Your task to perform on an android device: delete browsing data in the chrome app Image 0: 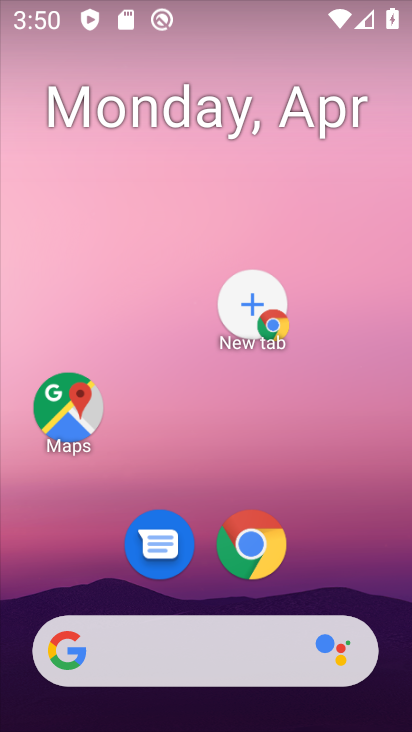
Step 0: drag from (344, 562) to (381, 147)
Your task to perform on an android device: delete browsing data in the chrome app Image 1: 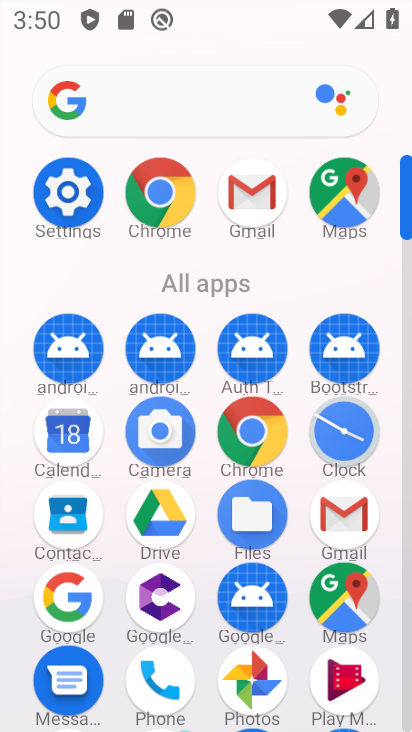
Step 1: click (236, 442)
Your task to perform on an android device: delete browsing data in the chrome app Image 2: 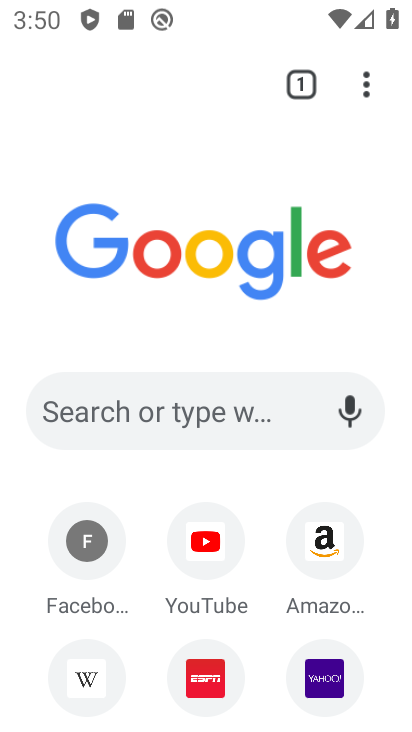
Step 2: click (359, 83)
Your task to perform on an android device: delete browsing data in the chrome app Image 3: 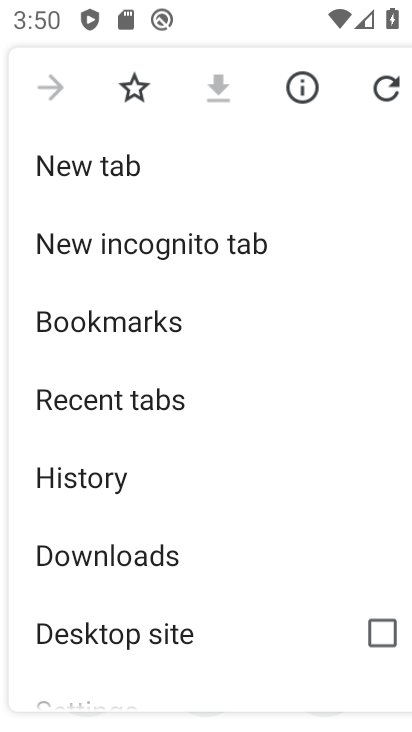
Step 3: drag from (265, 633) to (245, 276)
Your task to perform on an android device: delete browsing data in the chrome app Image 4: 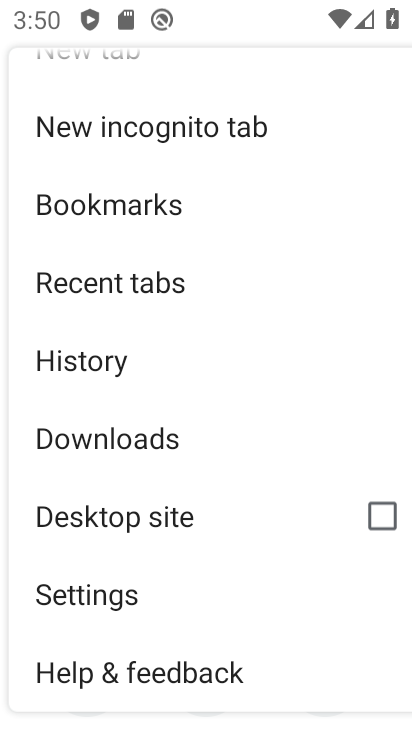
Step 4: click (129, 599)
Your task to perform on an android device: delete browsing data in the chrome app Image 5: 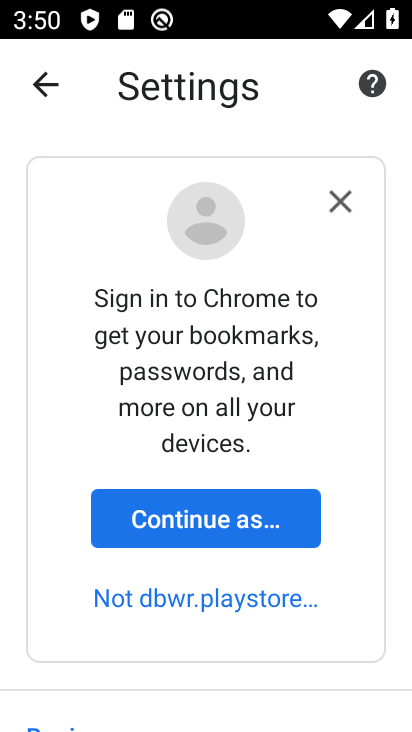
Step 5: drag from (241, 702) to (209, 292)
Your task to perform on an android device: delete browsing data in the chrome app Image 6: 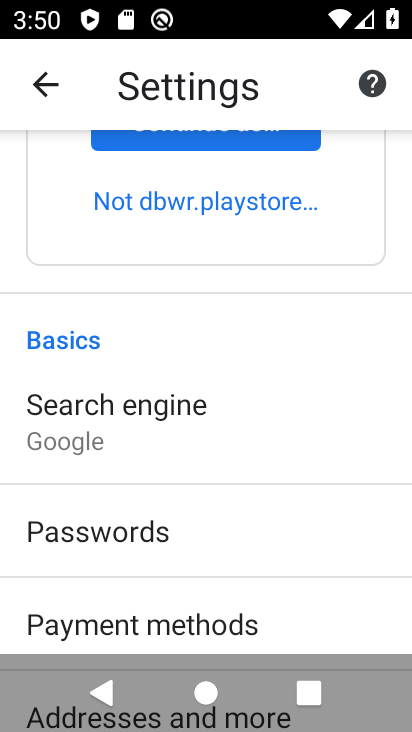
Step 6: drag from (250, 586) to (216, 310)
Your task to perform on an android device: delete browsing data in the chrome app Image 7: 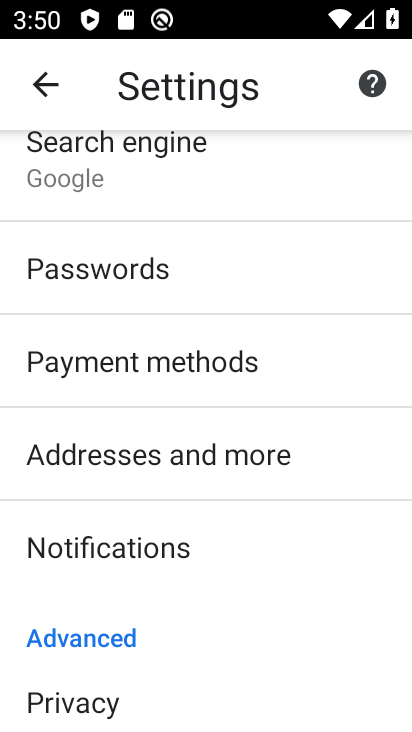
Step 7: drag from (197, 662) to (179, 375)
Your task to perform on an android device: delete browsing data in the chrome app Image 8: 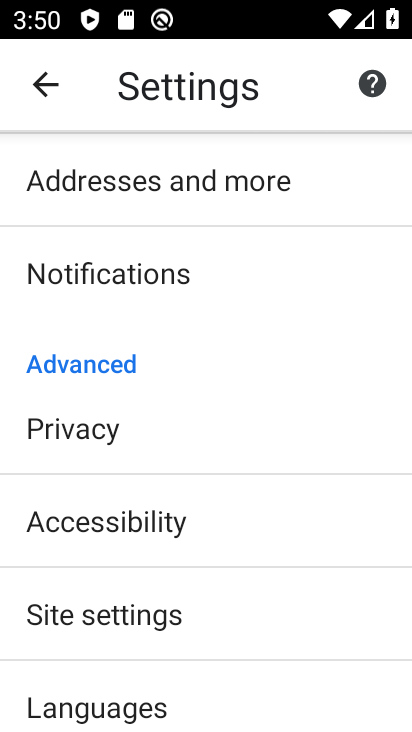
Step 8: click (98, 462)
Your task to perform on an android device: delete browsing data in the chrome app Image 9: 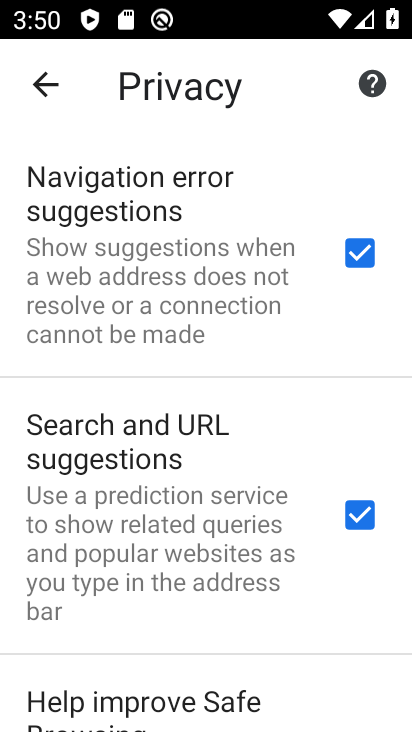
Step 9: drag from (285, 441) to (200, 274)
Your task to perform on an android device: delete browsing data in the chrome app Image 10: 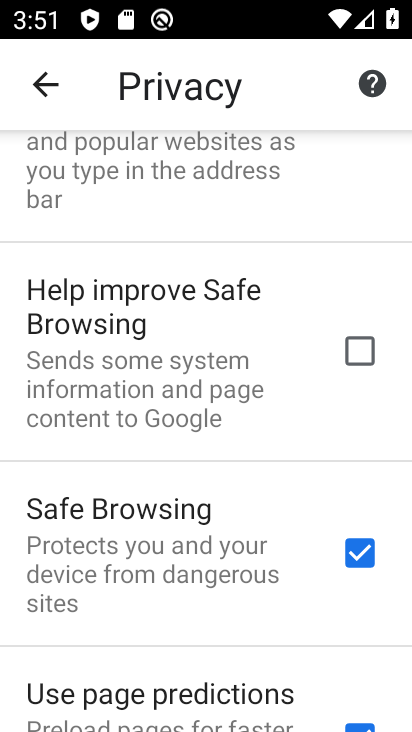
Step 10: drag from (236, 683) to (156, 707)
Your task to perform on an android device: delete browsing data in the chrome app Image 11: 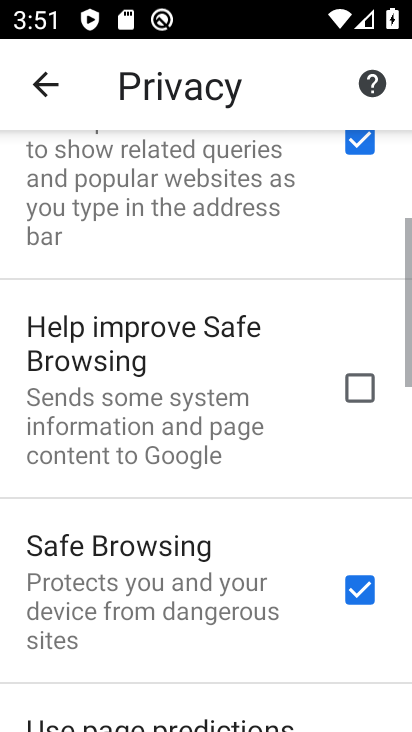
Step 11: drag from (200, 690) to (171, 364)
Your task to perform on an android device: delete browsing data in the chrome app Image 12: 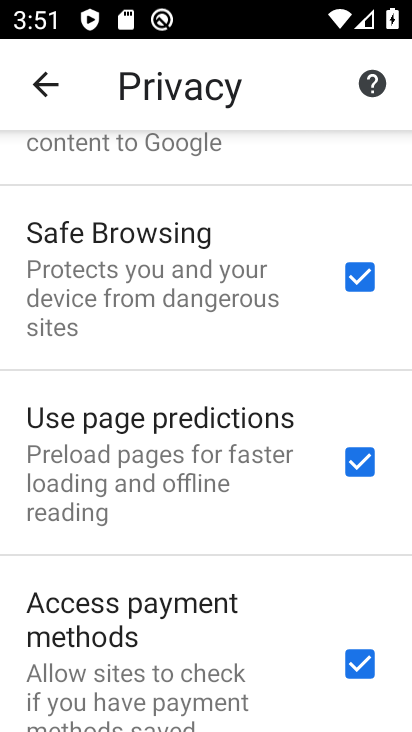
Step 12: drag from (245, 695) to (207, 407)
Your task to perform on an android device: delete browsing data in the chrome app Image 13: 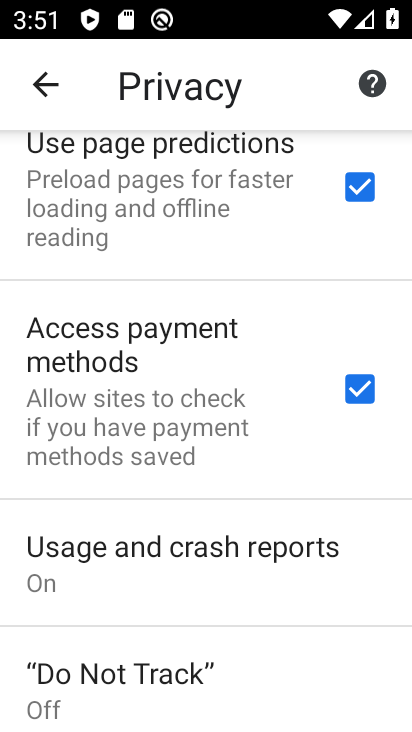
Step 13: drag from (157, 694) to (96, 273)
Your task to perform on an android device: delete browsing data in the chrome app Image 14: 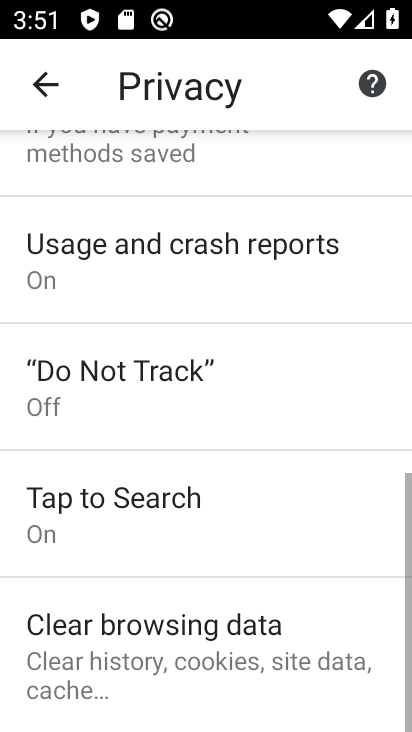
Step 14: click (108, 672)
Your task to perform on an android device: delete browsing data in the chrome app Image 15: 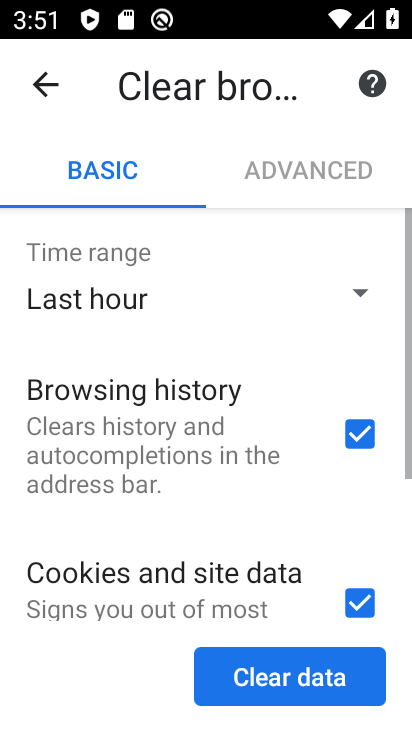
Step 15: click (321, 688)
Your task to perform on an android device: delete browsing data in the chrome app Image 16: 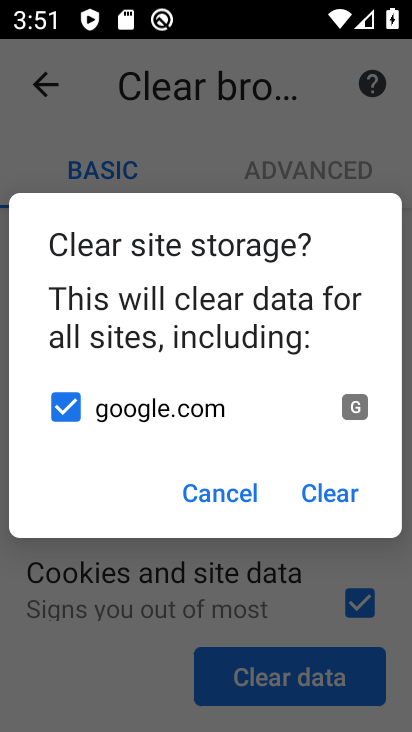
Step 16: click (343, 496)
Your task to perform on an android device: delete browsing data in the chrome app Image 17: 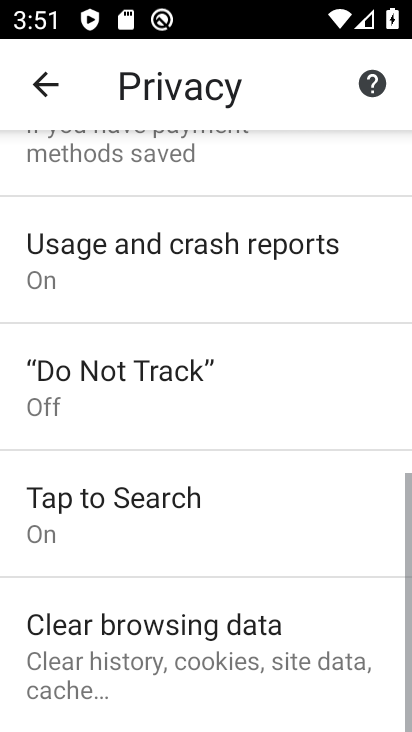
Step 17: task complete